Your task to perform on an android device: set default search engine in the chrome app Image 0: 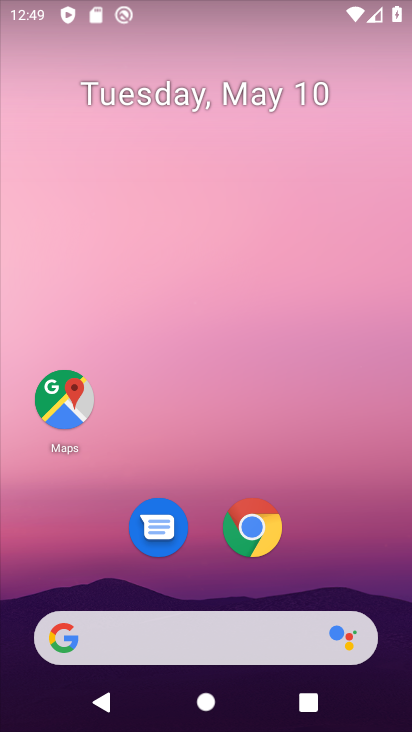
Step 0: click (249, 528)
Your task to perform on an android device: set default search engine in the chrome app Image 1: 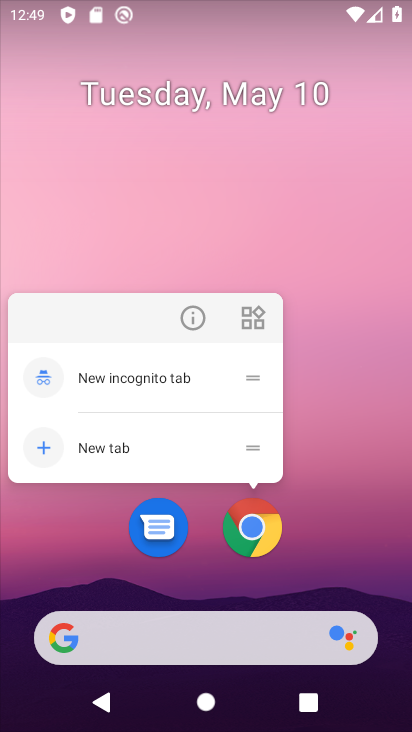
Step 1: click (270, 531)
Your task to perform on an android device: set default search engine in the chrome app Image 2: 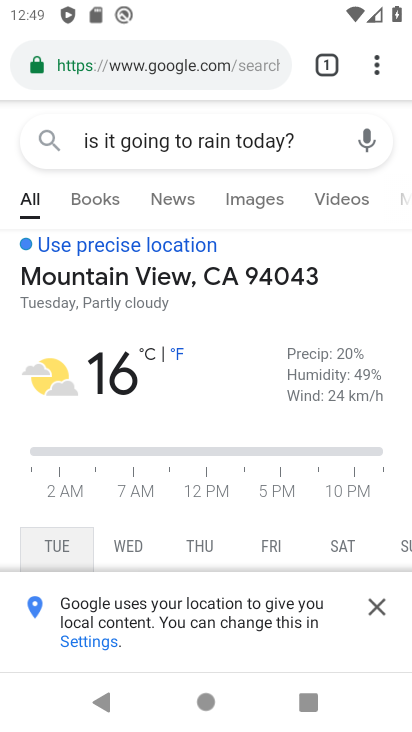
Step 2: click (382, 62)
Your task to perform on an android device: set default search engine in the chrome app Image 3: 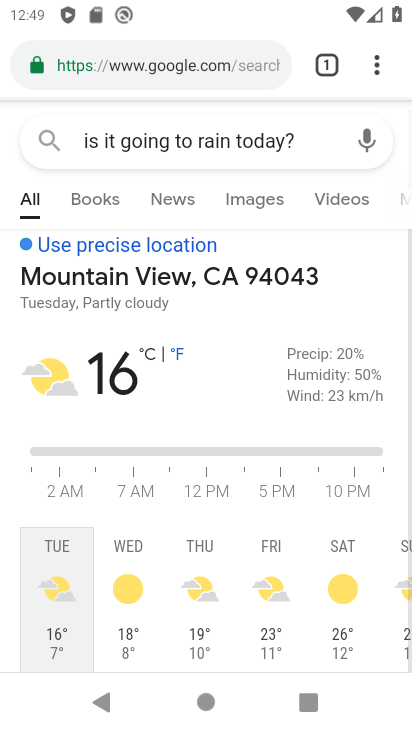
Step 3: drag from (381, 62) to (202, 575)
Your task to perform on an android device: set default search engine in the chrome app Image 4: 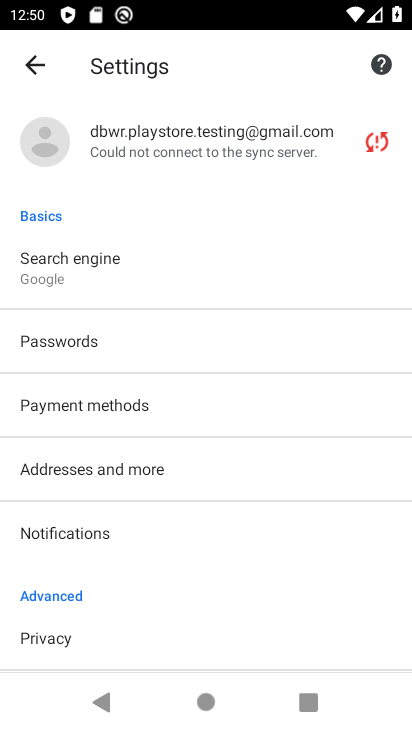
Step 4: drag from (150, 601) to (171, 244)
Your task to perform on an android device: set default search engine in the chrome app Image 5: 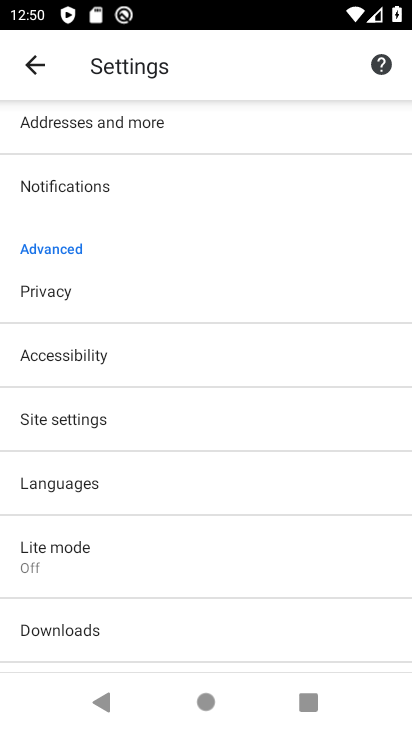
Step 5: drag from (210, 254) to (184, 619)
Your task to perform on an android device: set default search engine in the chrome app Image 6: 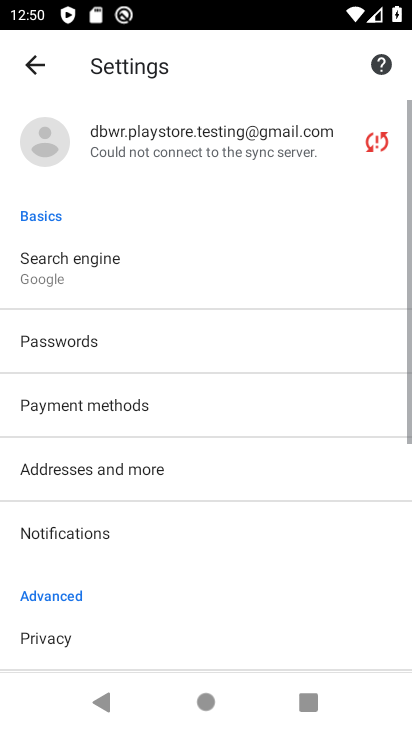
Step 6: click (168, 274)
Your task to perform on an android device: set default search engine in the chrome app Image 7: 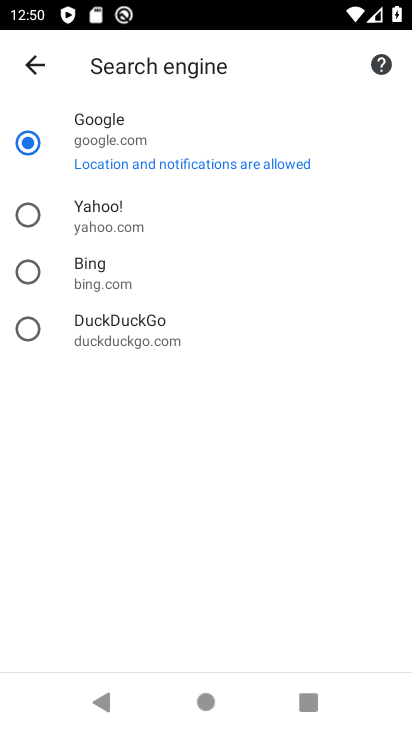
Step 7: click (151, 282)
Your task to perform on an android device: set default search engine in the chrome app Image 8: 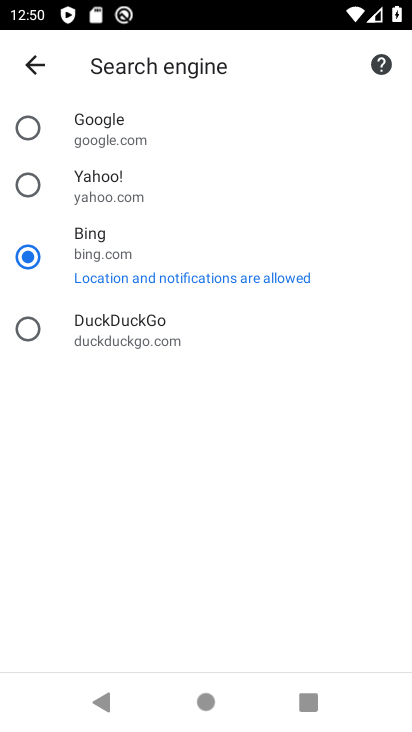
Step 8: task complete